Your task to perform on an android device: see creations saved in the google photos Image 0: 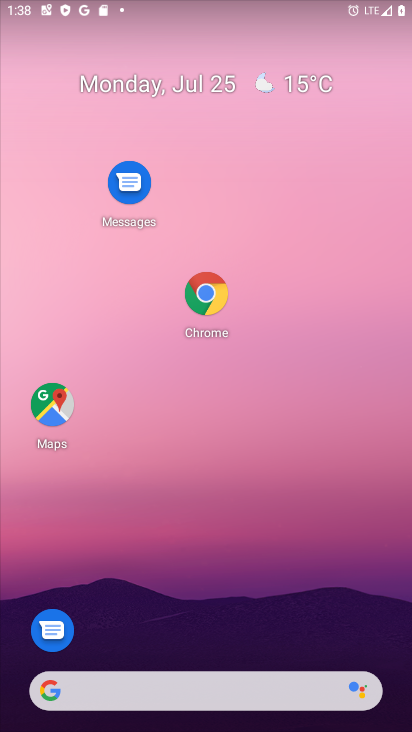
Step 0: drag from (250, 597) to (288, 81)
Your task to perform on an android device: see creations saved in the google photos Image 1: 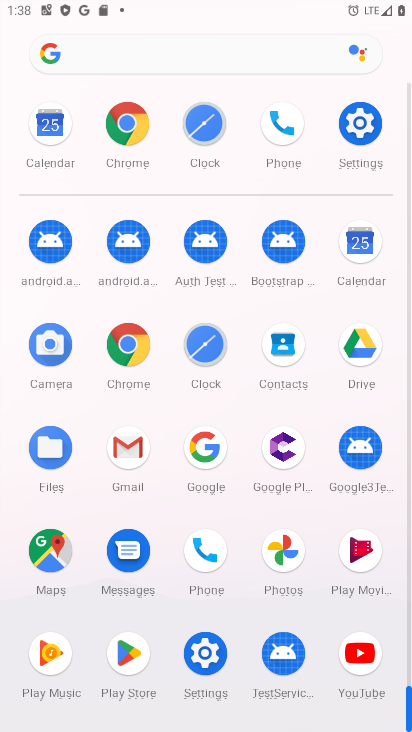
Step 1: click (284, 537)
Your task to perform on an android device: see creations saved in the google photos Image 2: 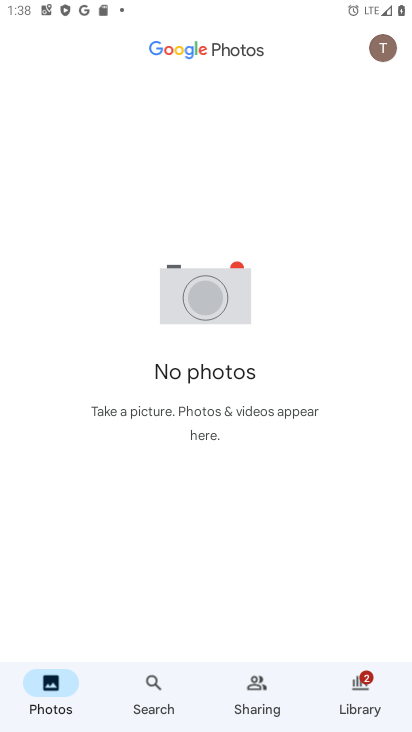
Step 2: click (148, 708)
Your task to perform on an android device: see creations saved in the google photos Image 3: 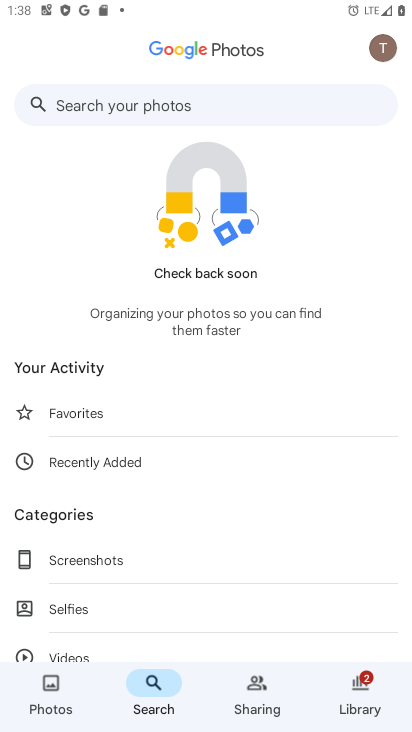
Step 3: click (91, 97)
Your task to perform on an android device: see creations saved in the google photos Image 4: 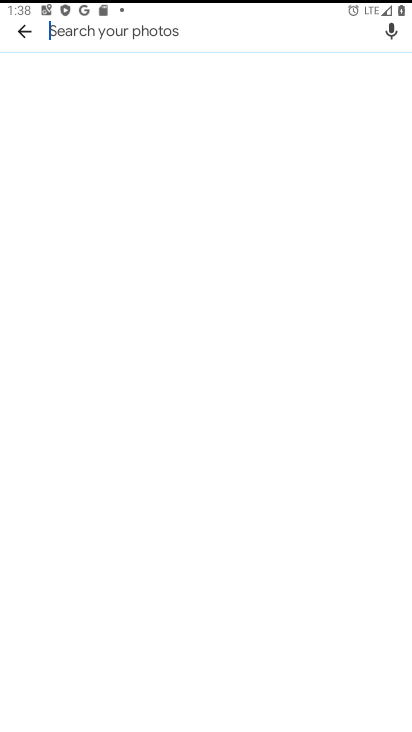
Step 4: drag from (136, 549) to (157, 215)
Your task to perform on an android device: see creations saved in the google photos Image 5: 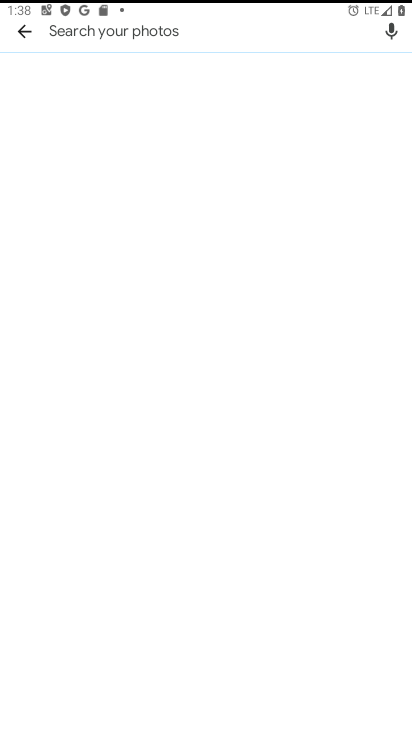
Step 5: click (29, 23)
Your task to perform on an android device: see creations saved in the google photos Image 6: 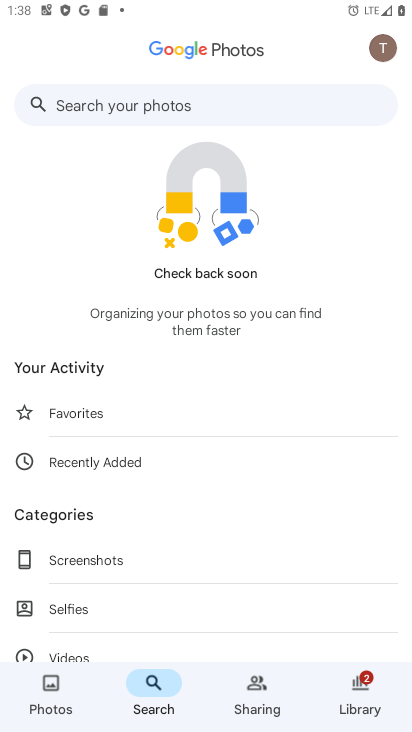
Step 6: drag from (170, 474) to (193, 198)
Your task to perform on an android device: see creations saved in the google photos Image 7: 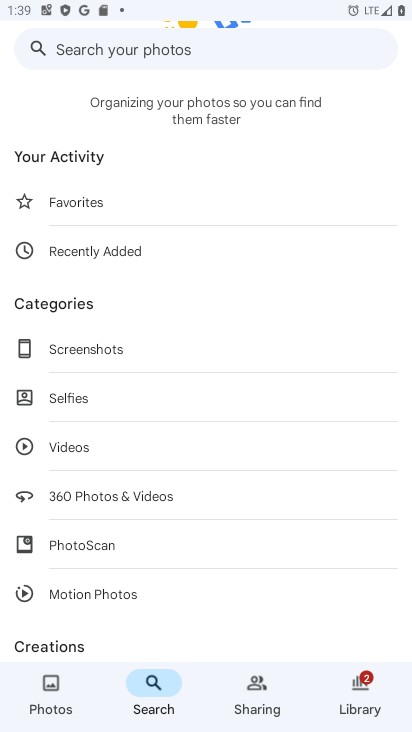
Step 7: drag from (126, 619) to (153, 196)
Your task to perform on an android device: see creations saved in the google photos Image 8: 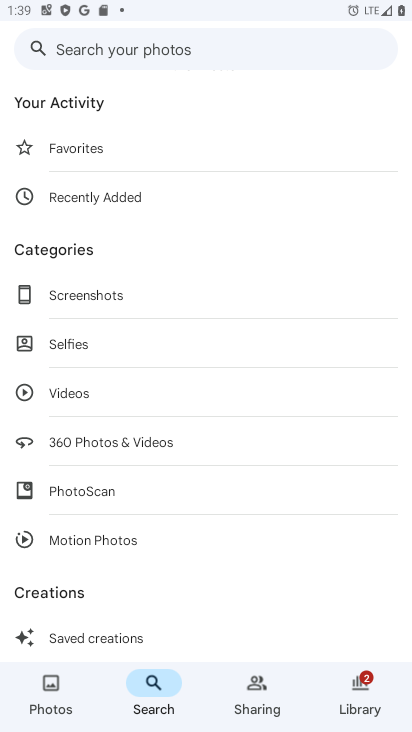
Step 8: click (75, 635)
Your task to perform on an android device: see creations saved in the google photos Image 9: 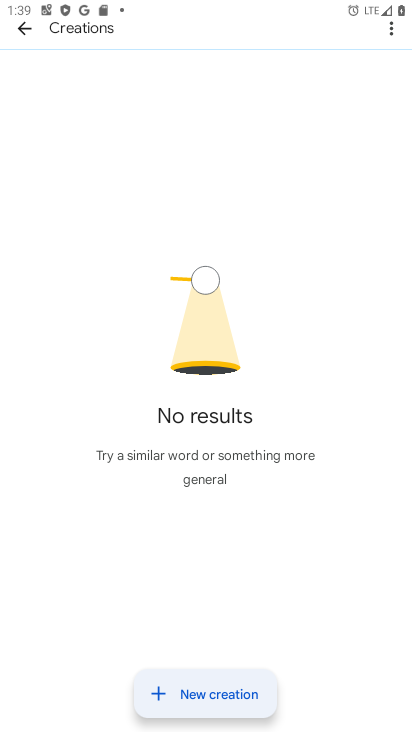
Step 9: task complete